Your task to perform on an android device: Search for pizza restaurants on Maps Image 0: 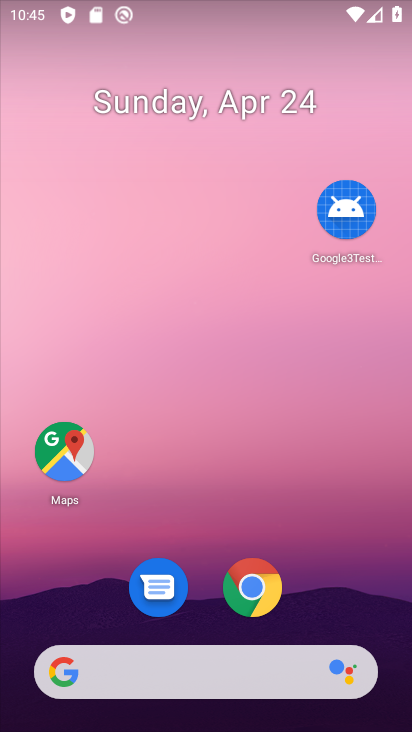
Step 0: drag from (376, 589) to (355, 95)
Your task to perform on an android device: Search for pizza restaurants on Maps Image 1: 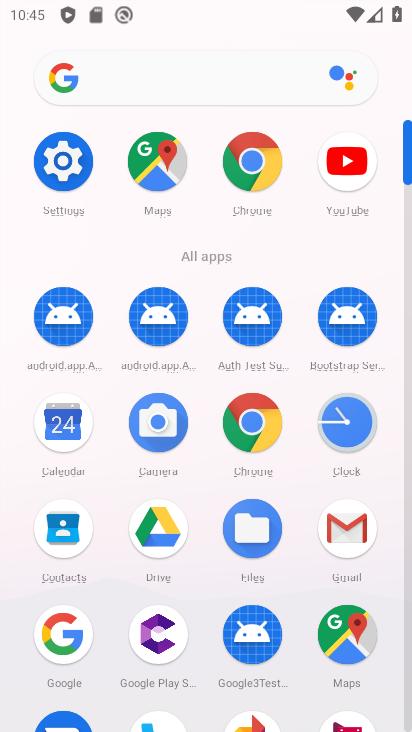
Step 1: click (340, 624)
Your task to perform on an android device: Search for pizza restaurants on Maps Image 2: 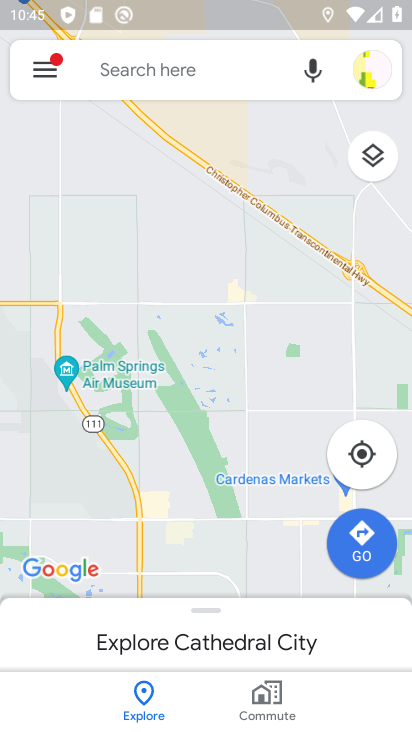
Step 2: click (166, 68)
Your task to perform on an android device: Search for pizza restaurants on Maps Image 3: 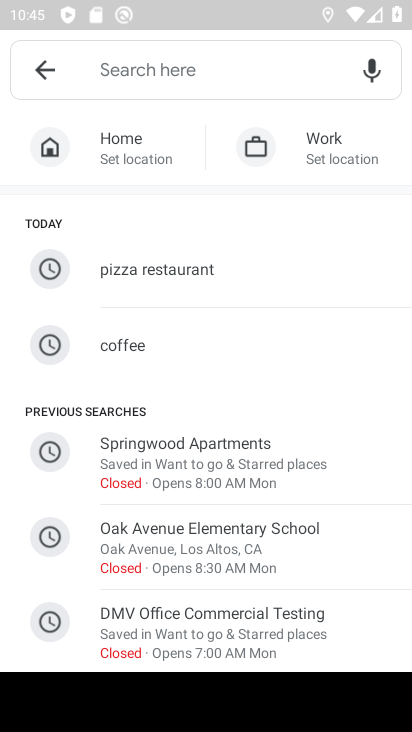
Step 3: type "pizza restaurants"
Your task to perform on an android device: Search for pizza restaurants on Maps Image 4: 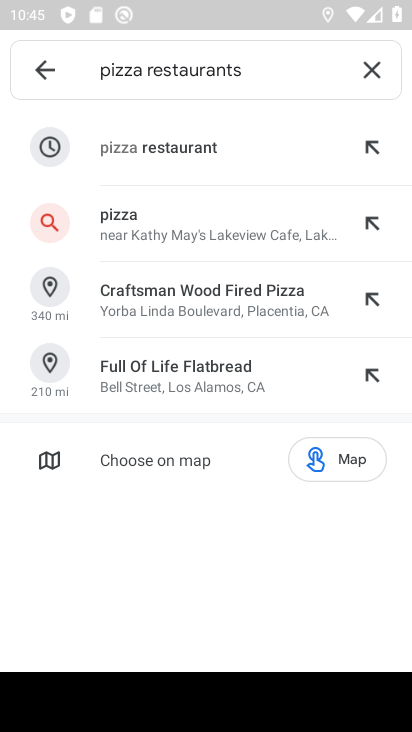
Step 4: click (172, 157)
Your task to perform on an android device: Search for pizza restaurants on Maps Image 5: 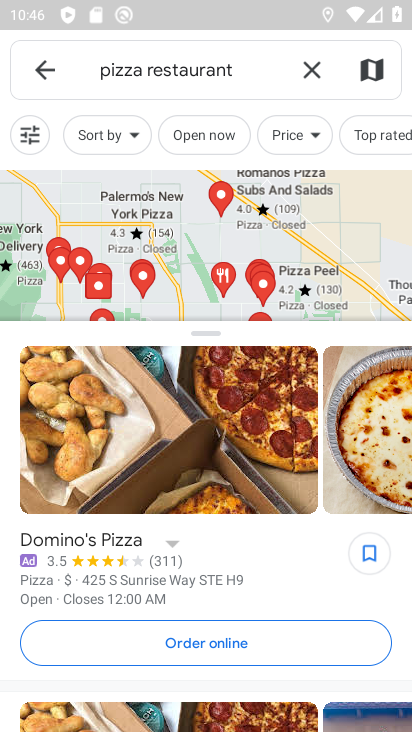
Step 5: task complete